Your task to perform on an android device: set an alarm Image 0: 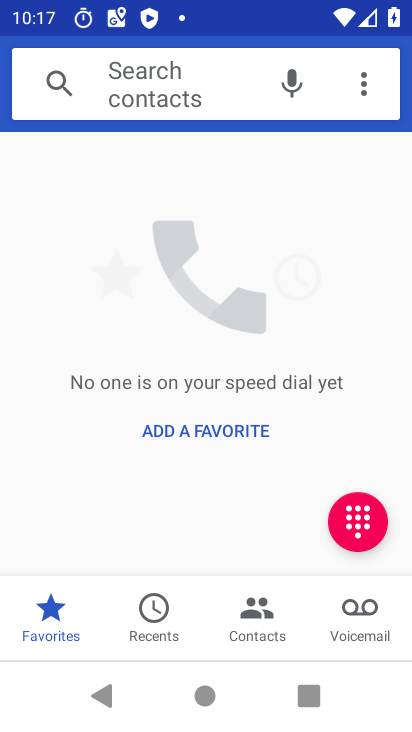
Step 0: press home button
Your task to perform on an android device: set an alarm Image 1: 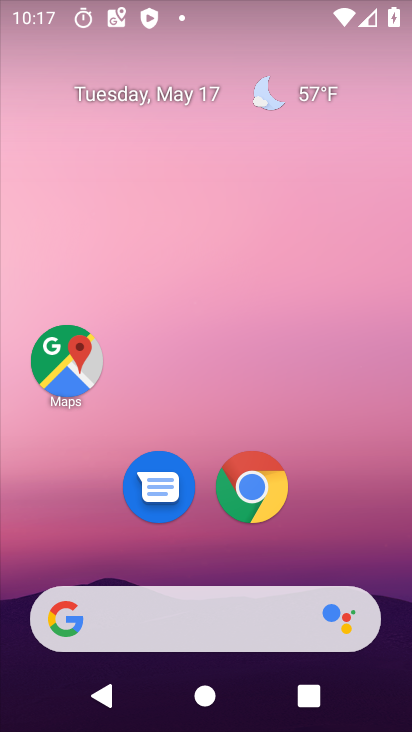
Step 1: drag from (241, 723) to (243, 179)
Your task to perform on an android device: set an alarm Image 2: 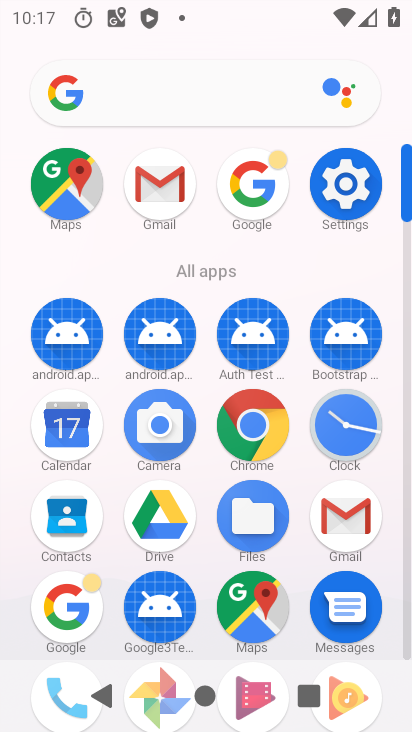
Step 2: click (345, 423)
Your task to perform on an android device: set an alarm Image 3: 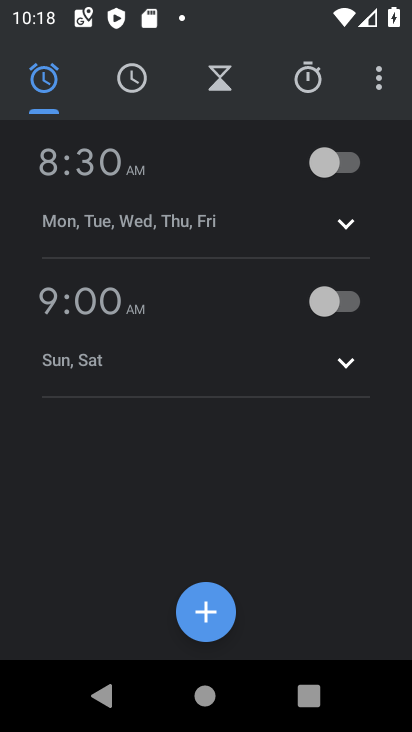
Step 3: click (206, 613)
Your task to perform on an android device: set an alarm Image 4: 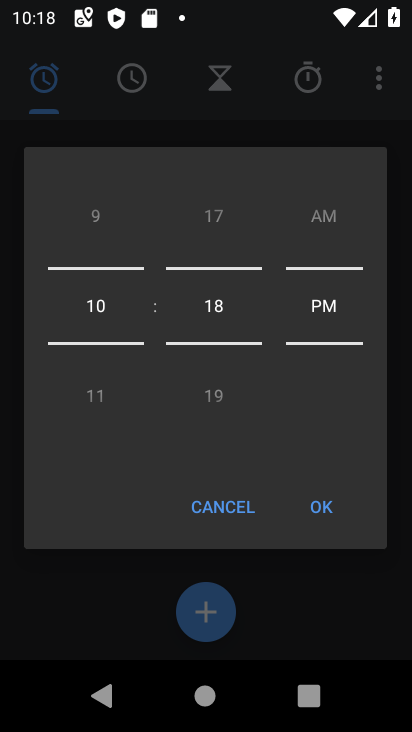
Step 4: click (97, 221)
Your task to perform on an android device: set an alarm Image 5: 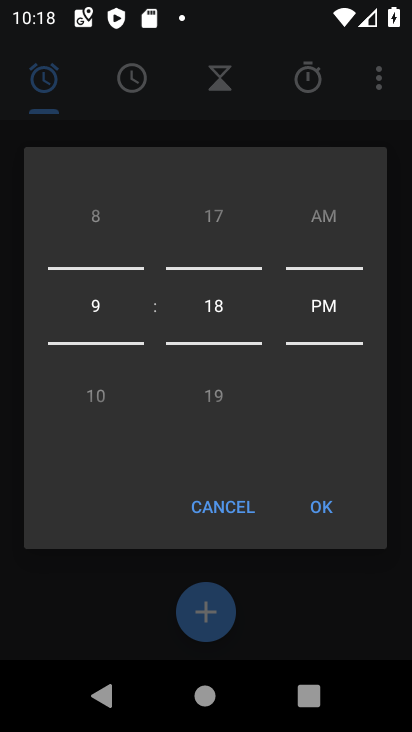
Step 5: click (219, 218)
Your task to perform on an android device: set an alarm Image 6: 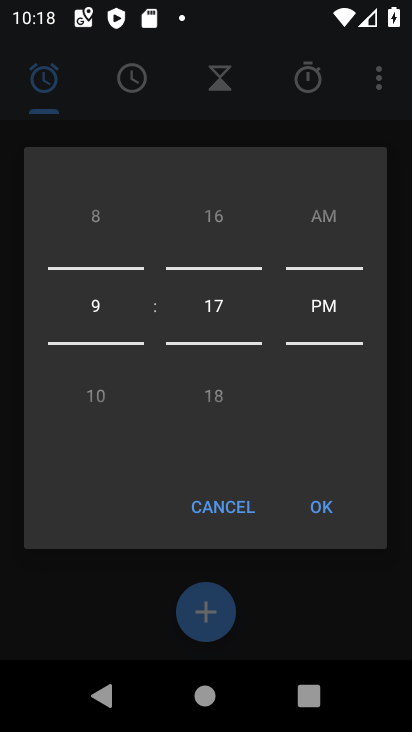
Step 6: click (329, 217)
Your task to perform on an android device: set an alarm Image 7: 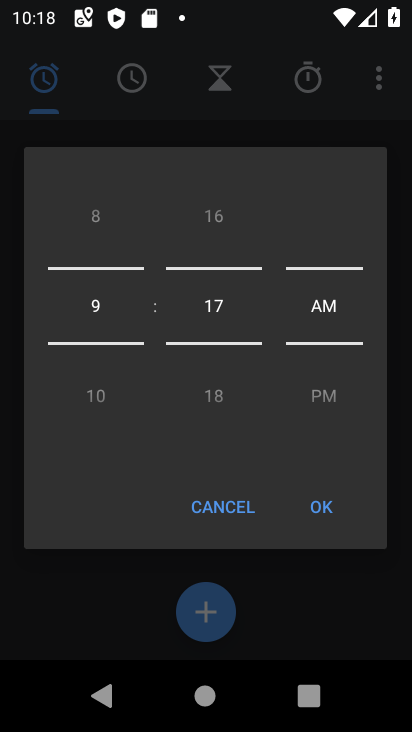
Step 7: click (318, 507)
Your task to perform on an android device: set an alarm Image 8: 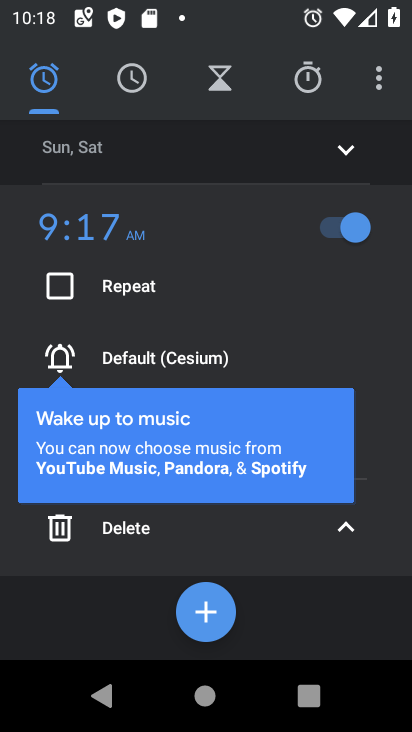
Step 8: task complete